Your task to perform on an android device: set default search engine in the chrome app Image 0: 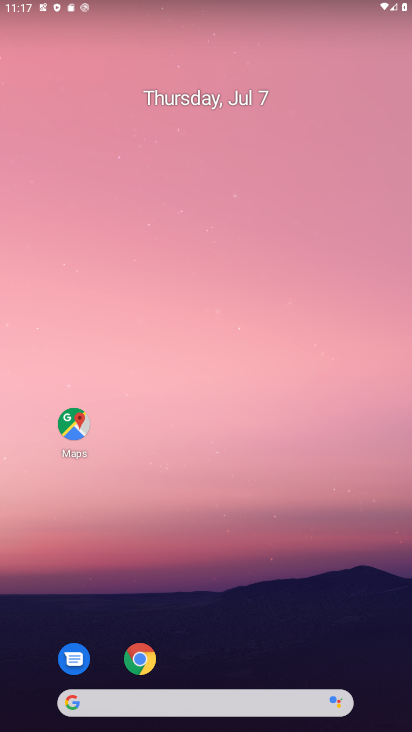
Step 0: press home button
Your task to perform on an android device: set default search engine in the chrome app Image 1: 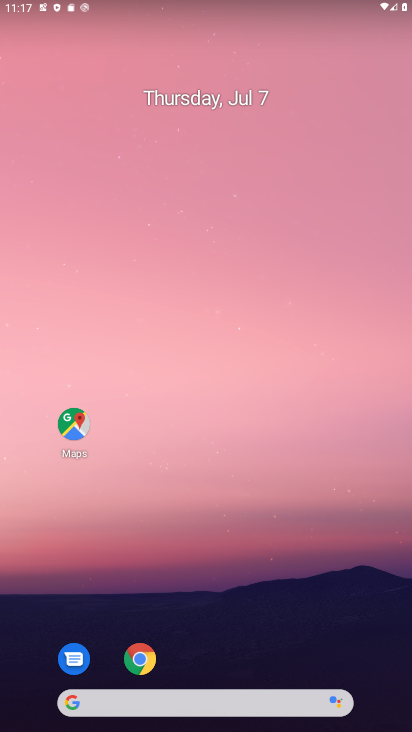
Step 1: click (133, 658)
Your task to perform on an android device: set default search engine in the chrome app Image 2: 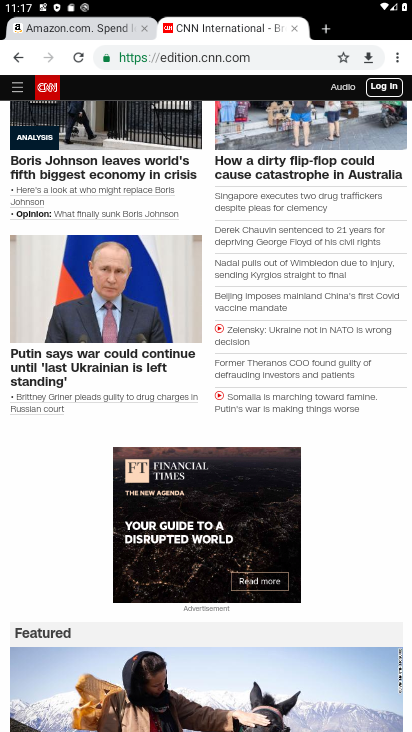
Step 2: click (294, 31)
Your task to perform on an android device: set default search engine in the chrome app Image 3: 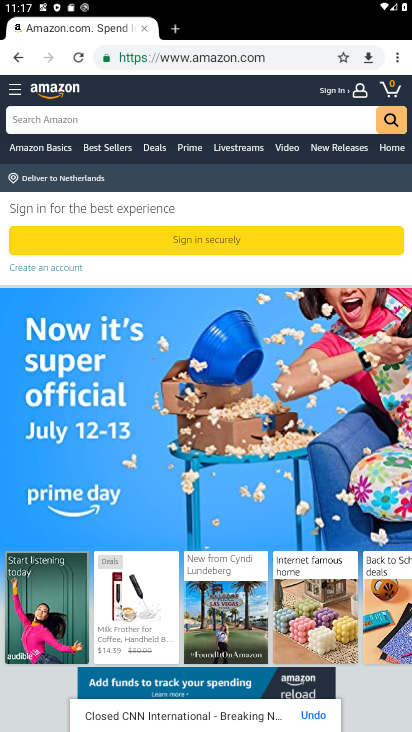
Step 3: click (182, 26)
Your task to perform on an android device: set default search engine in the chrome app Image 4: 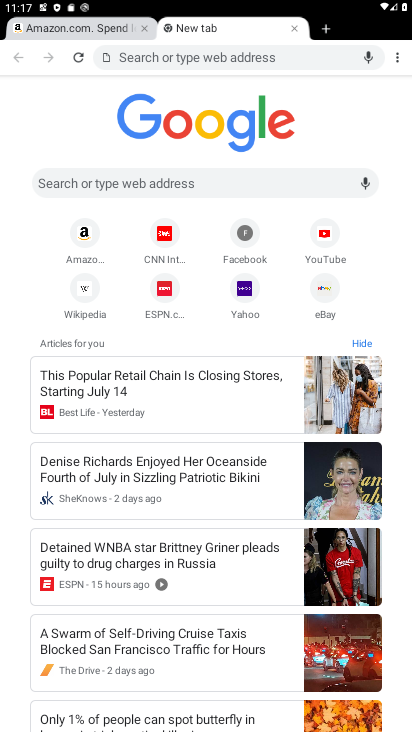
Step 4: click (395, 53)
Your task to perform on an android device: set default search engine in the chrome app Image 5: 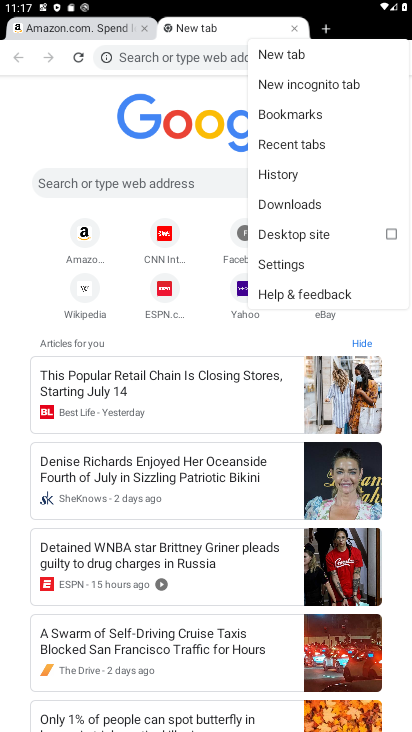
Step 5: click (303, 263)
Your task to perform on an android device: set default search engine in the chrome app Image 6: 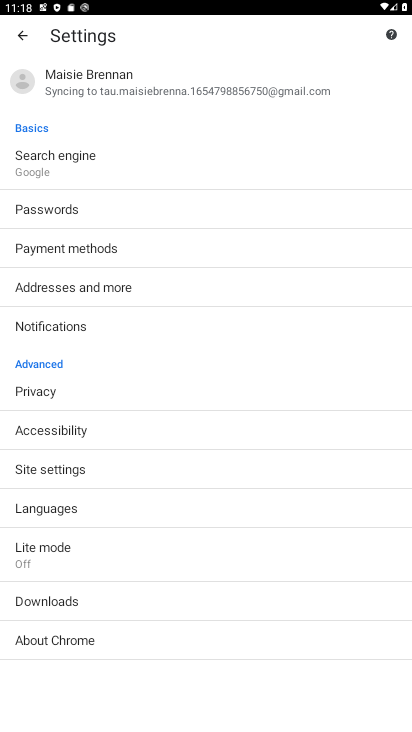
Step 6: click (90, 165)
Your task to perform on an android device: set default search engine in the chrome app Image 7: 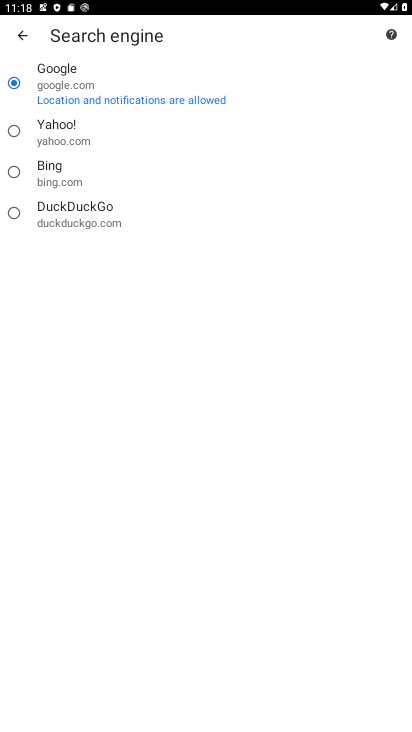
Step 7: click (13, 169)
Your task to perform on an android device: set default search engine in the chrome app Image 8: 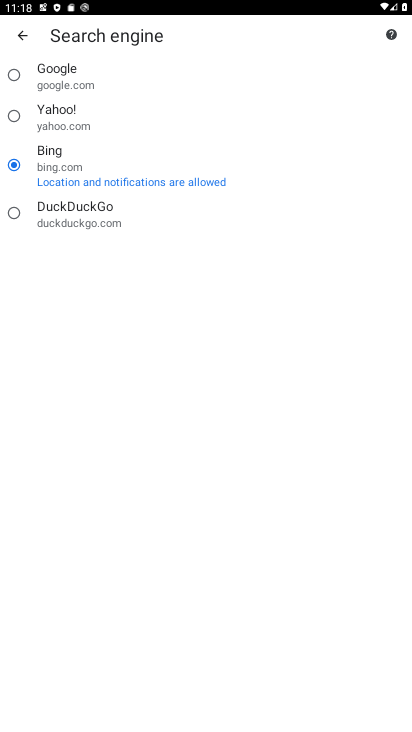
Step 8: task complete